Your task to perform on an android device: open device folders in google photos Image 0: 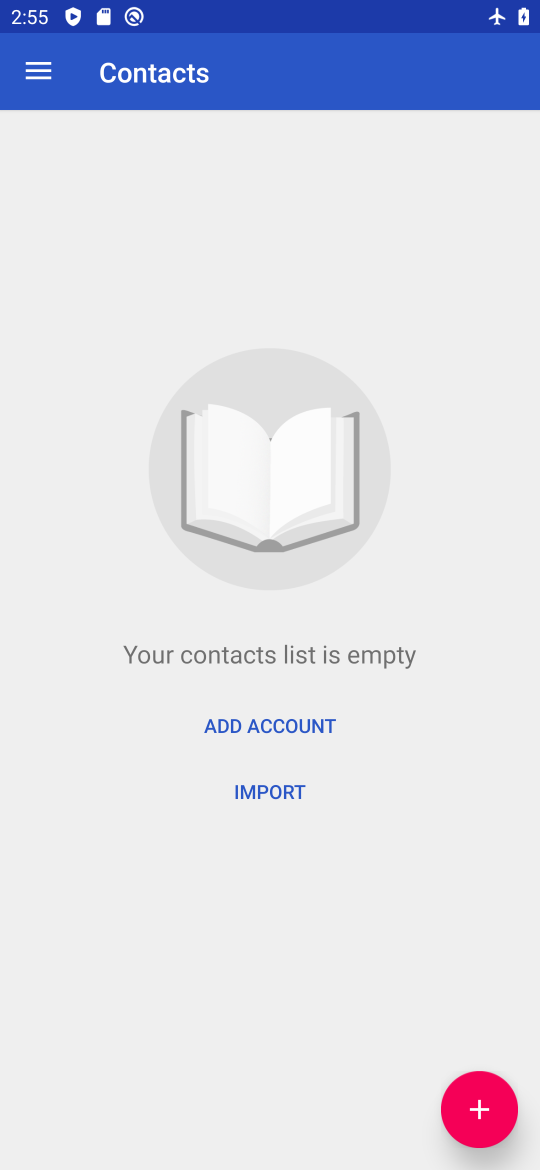
Step 0: task complete